Your task to perform on an android device: Open display settings Image 0: 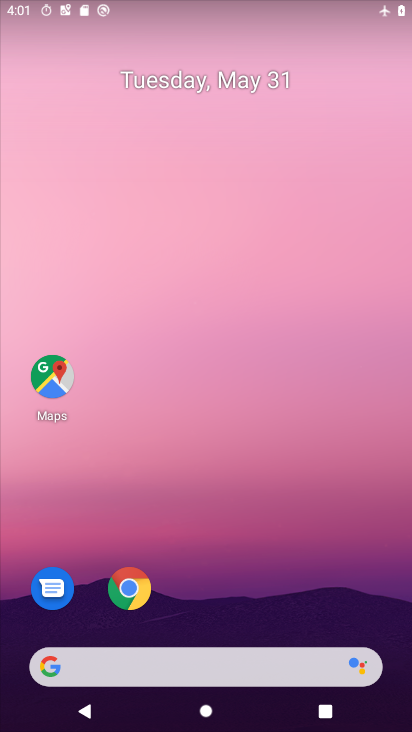
Step 0: drag from (232, 611) to (222, 290)
Your task to perform on an android device: Open display settings Image 1: 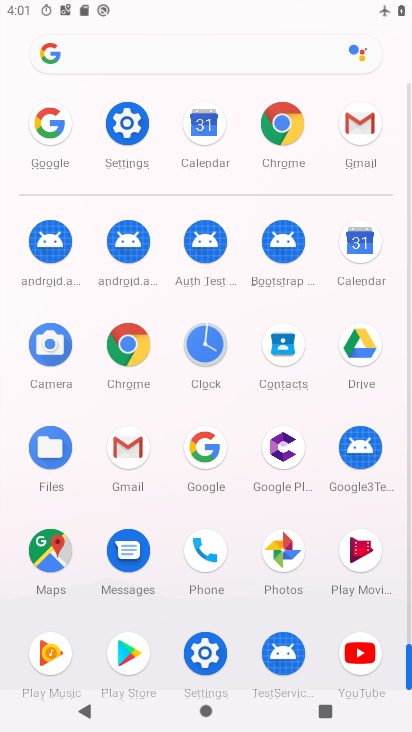
Step 1: click (131, 163)
Your task to perform on an android device: Open display settings Image 2: 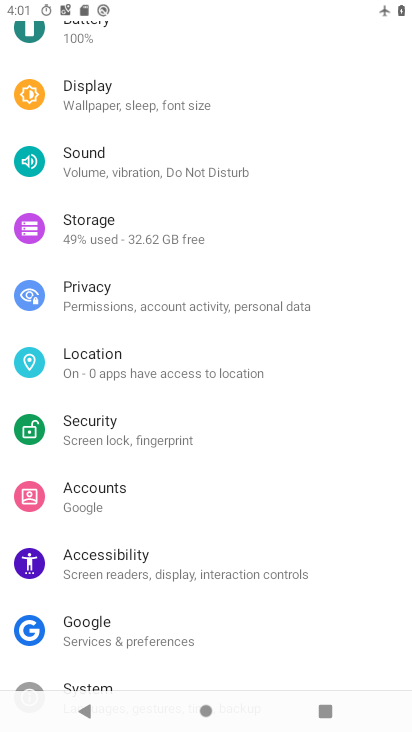
Step 2: click (169, 94)
Your task to perform on an android device: Open display settings Image 3: 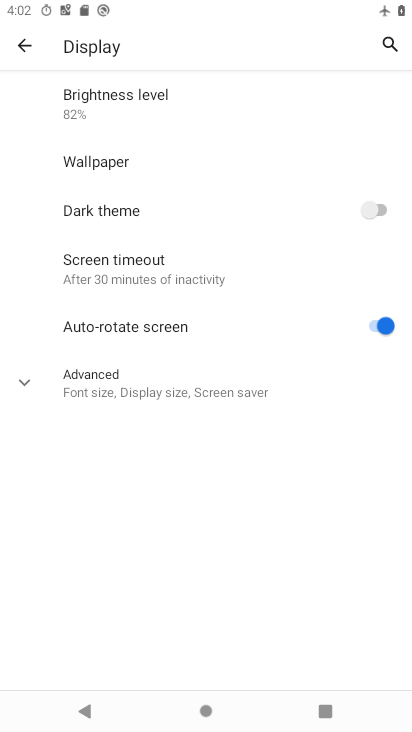
Step 3: task complete